Your task to perform on an android device: change notifications settings Image 0: 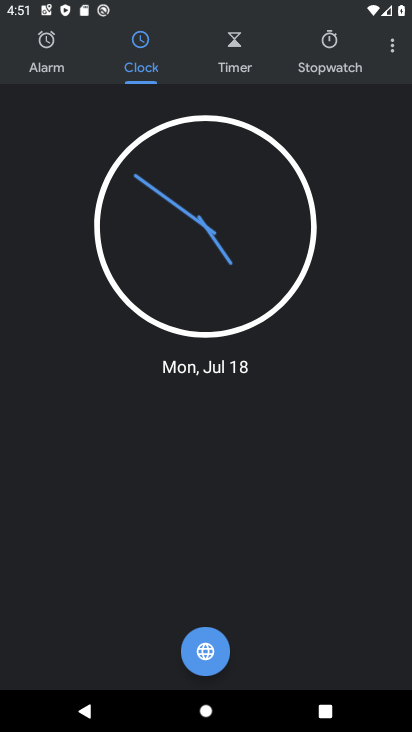
Step 0: press home button
Your task to perform on an android device: change notifications settings Image 1: 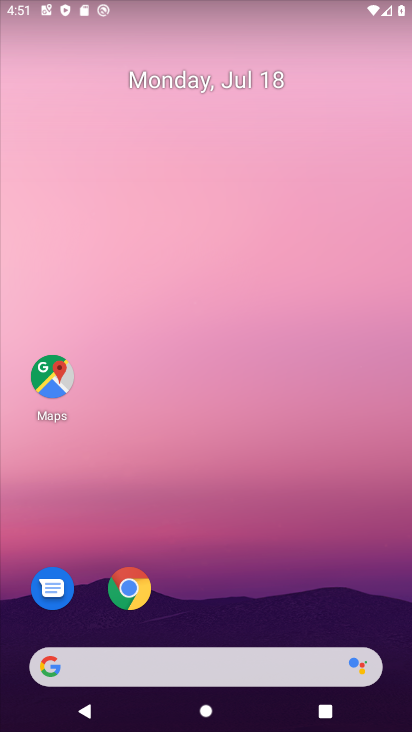
Step 1: drag from (344, 627) to (218, 124)
Your task to perform on an android device: change notifications settings Image 2: 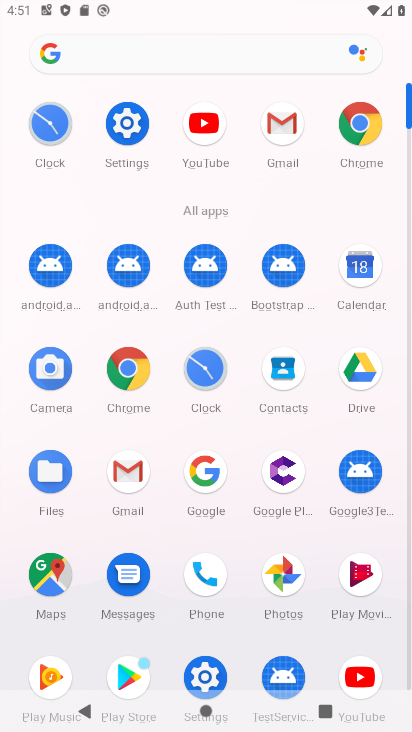
Step 2: click (122, 123)
Your task to perform on an android device: change notifications settings Image 3: 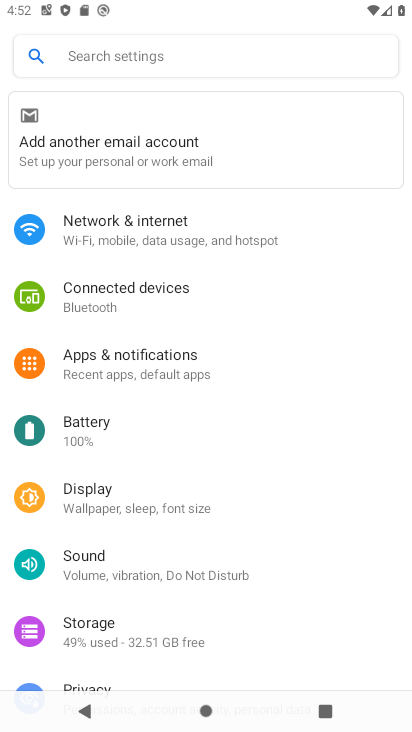
Step 3: click (192, 356)
Your task to perform on an android device: change notifications settings Image 4: 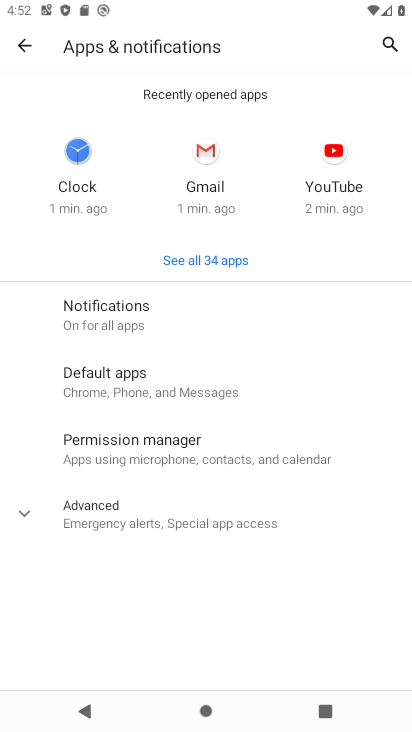
Step 4: click (206, 319)
Your task to perform on an android device: change notifications settings Image 5: 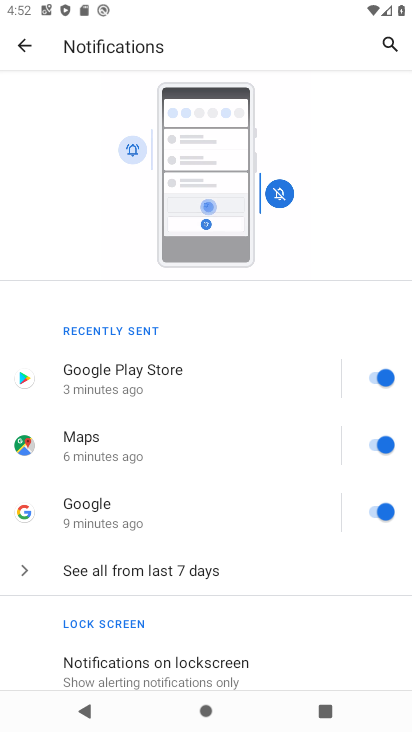
Step 5: task complete